Your task to perform on an android device: Open the Play Movies app and select the watchlist tab. Image 0: 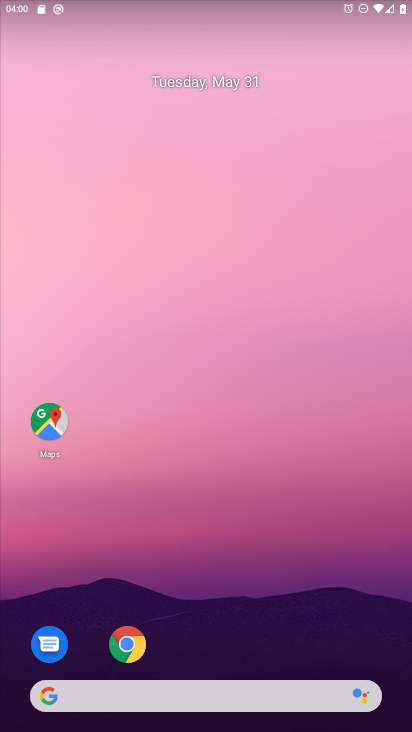
Step 0: drag from (242, 631) to (290, 149)
Your task to perform on an android device: Open the Play Movies app and select the watchlist tab. Image 1: 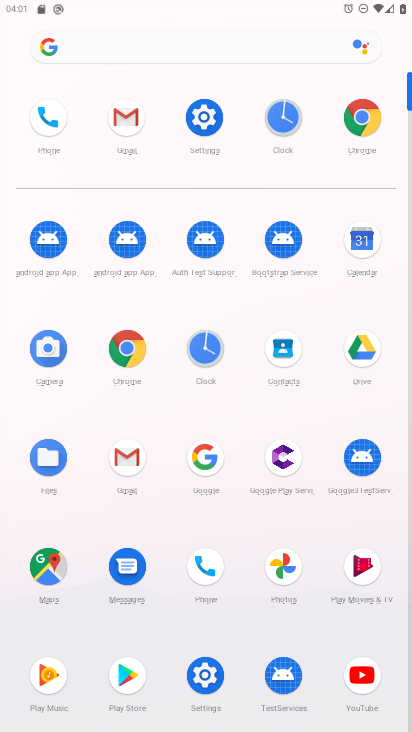
Step 1: click (369, 564)
Your task to perform on an android device: Open the Play Movies app and select the watchlist tab. Image 2: 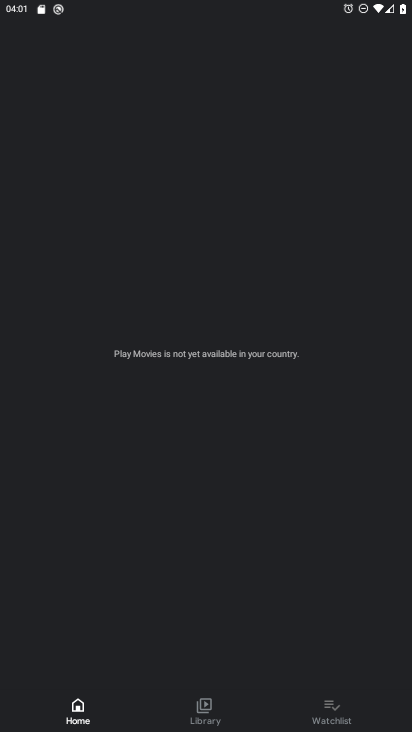
Step 2: click (334, 707)
Your task to perform on an android device: Open the Play Movies app and select the watchlist tab. Image 3: 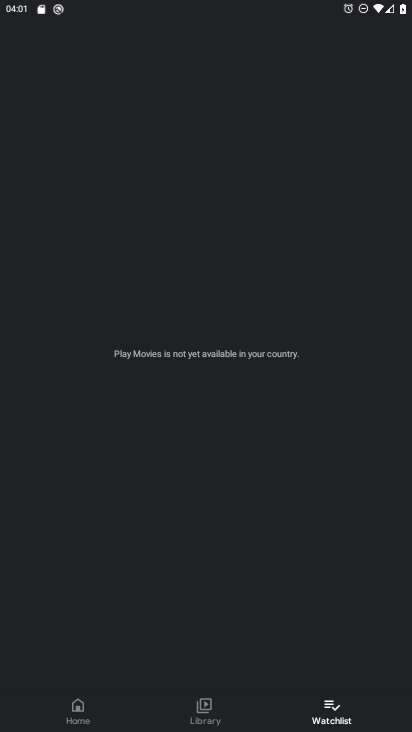
Step 3: task complete